Your task to perform on an android device: Open Youtube and go to "Your channel" Image 0: 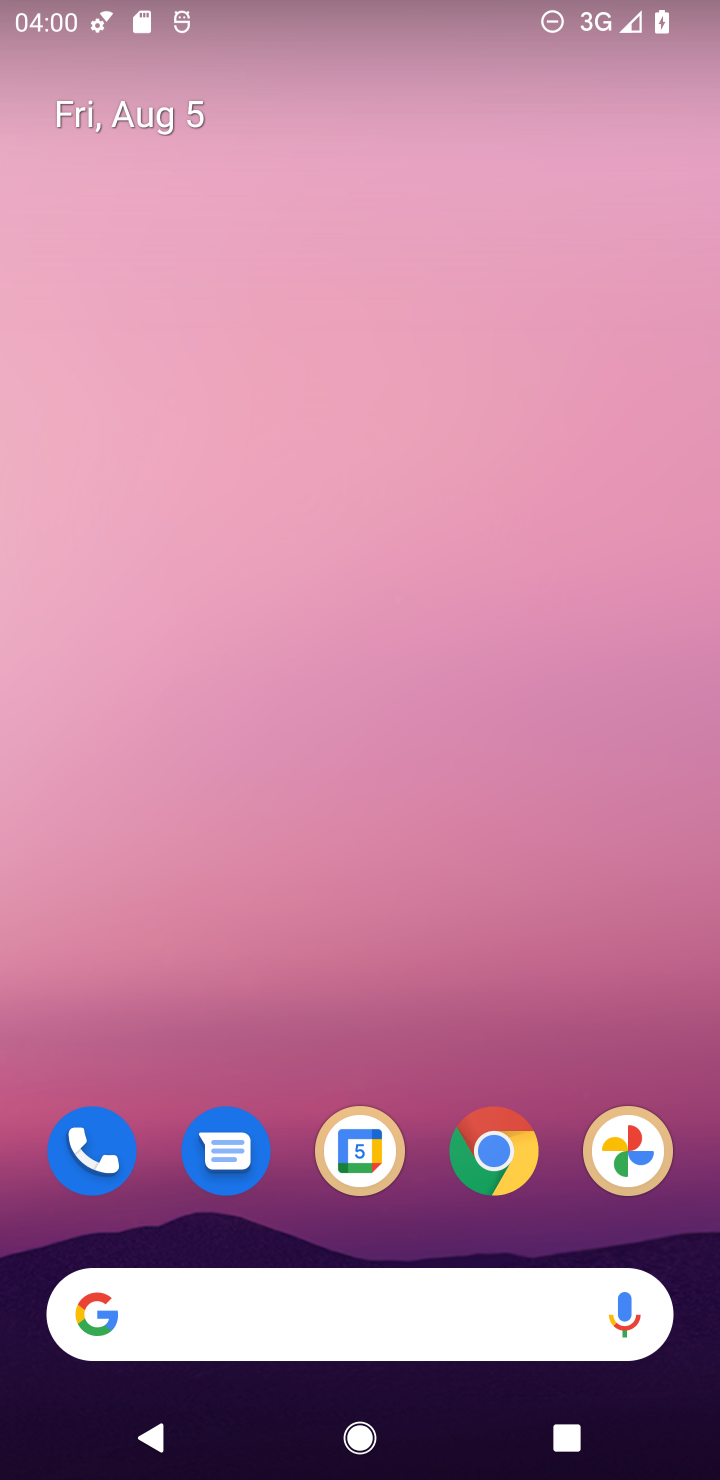
Step 0: drag from (469, 1052) to (440, 255)
Your task to perform on an android device: Open Youtube and go to "Your channel" Image 1: 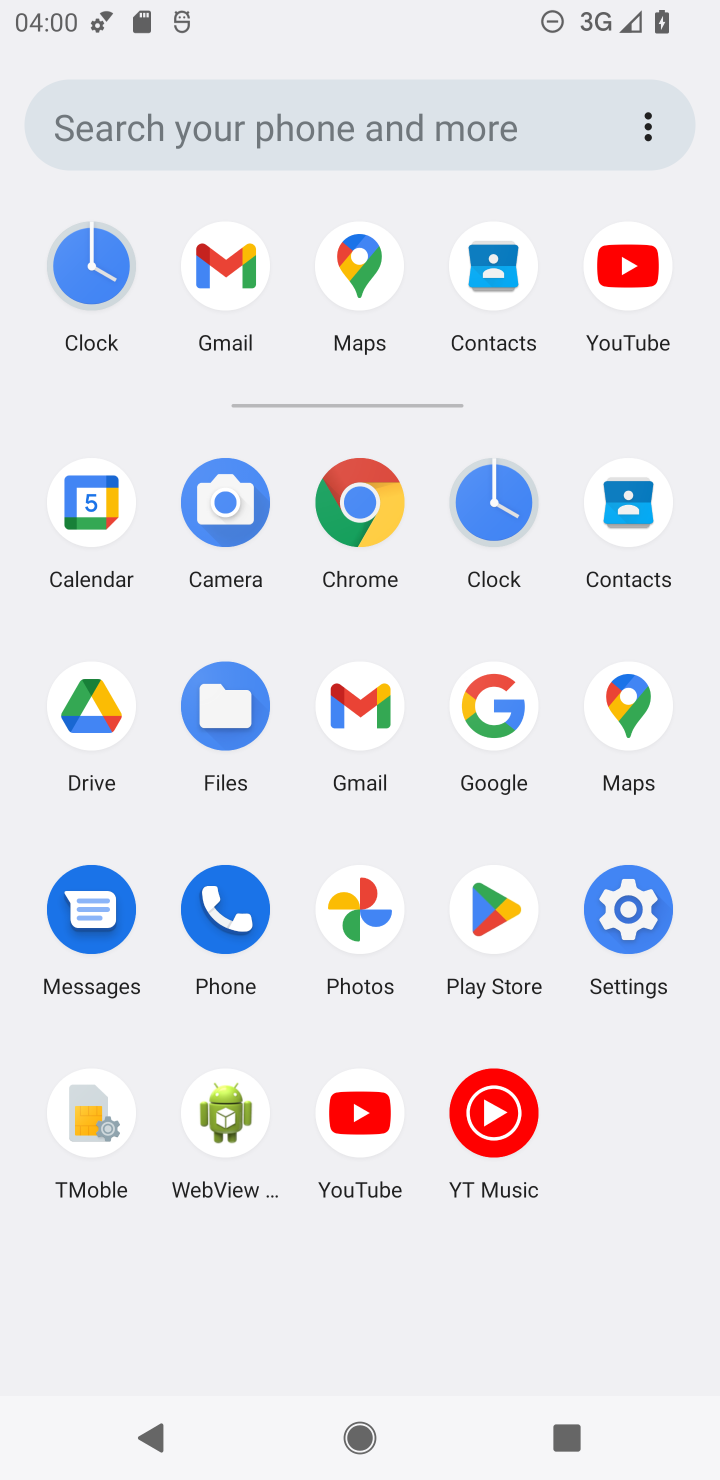
Step 1: click (344, 1092)
Your task to perform on an android device: Open Youtube and go to "Your channel" Image 2: 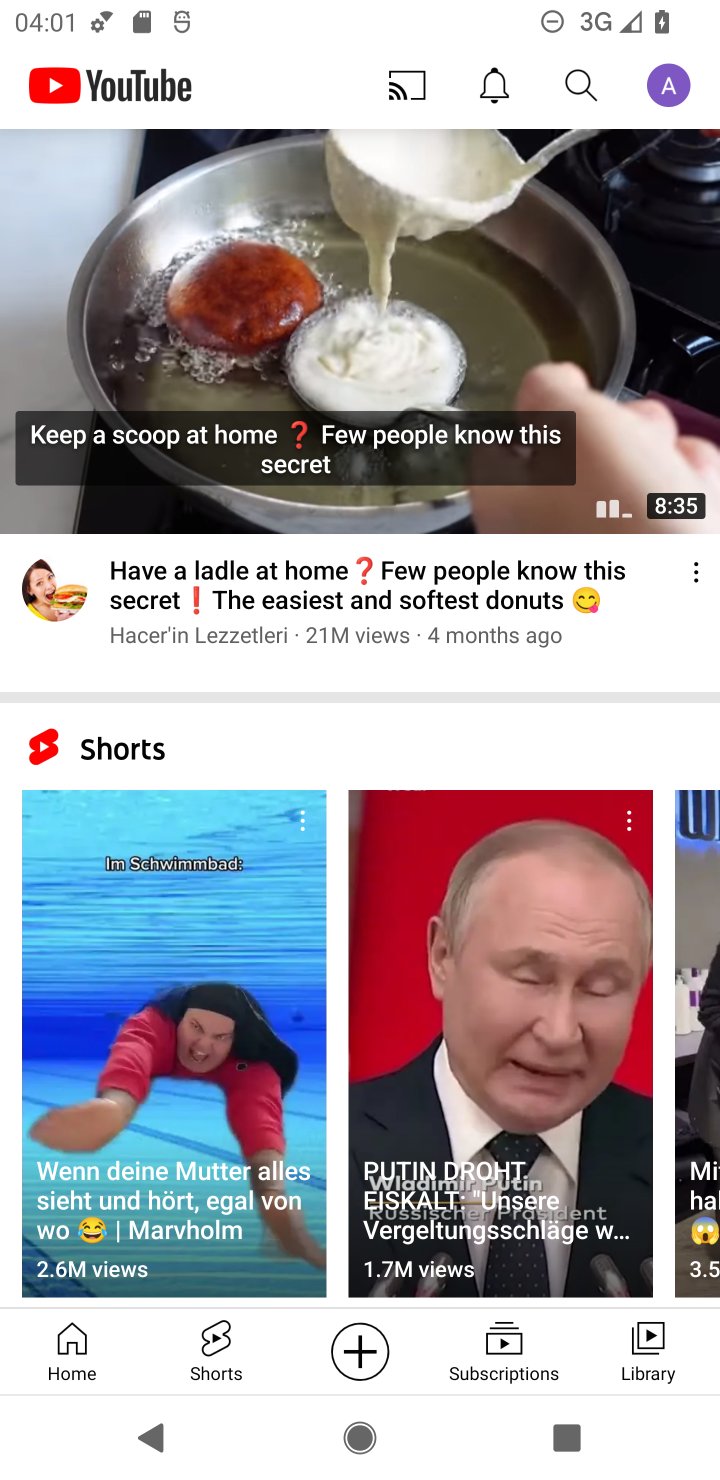
Step 2: click (651, 1333)
Your task to perform on an android device: Open Youtube and go to "Your channel" Image 3: 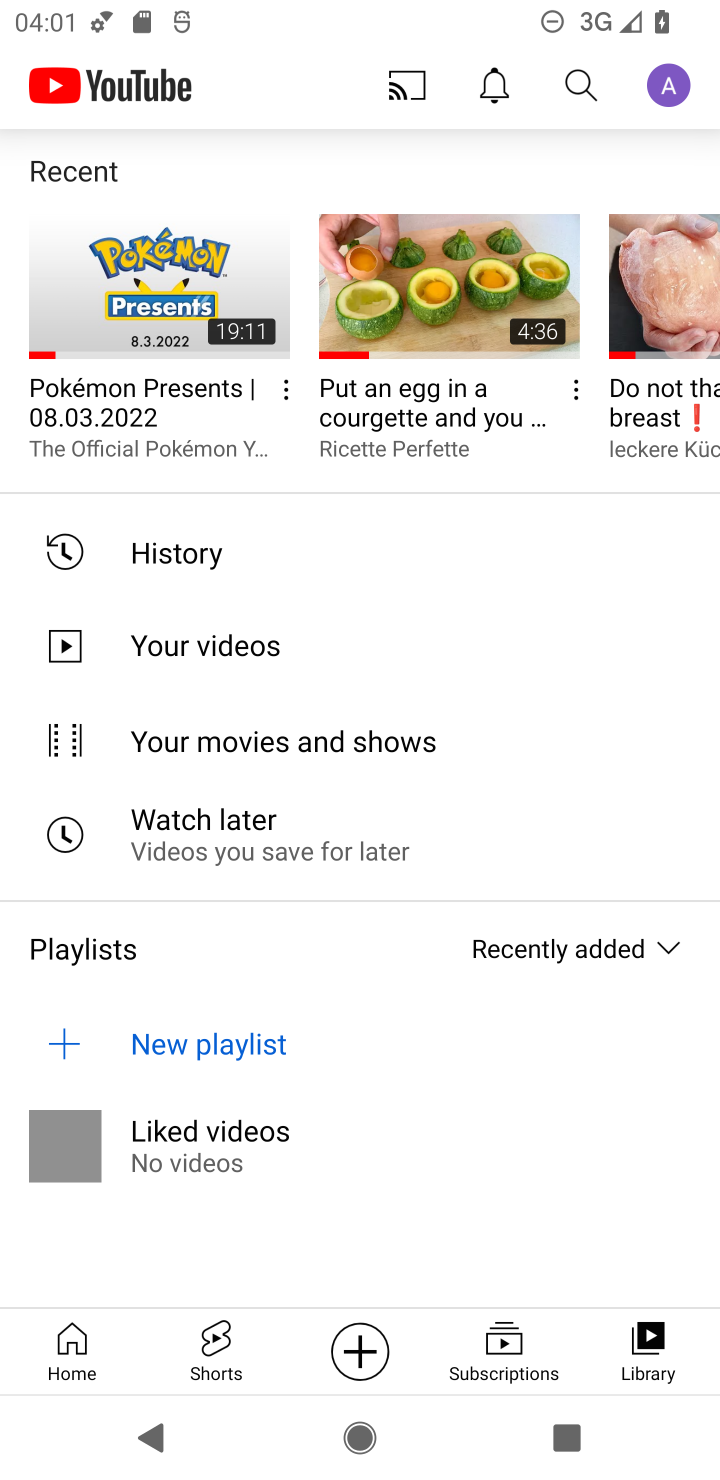
Step 3: click (682, 86)
Your task to perform on an android device: Open Youtube and go to "Your channel" Image 4: 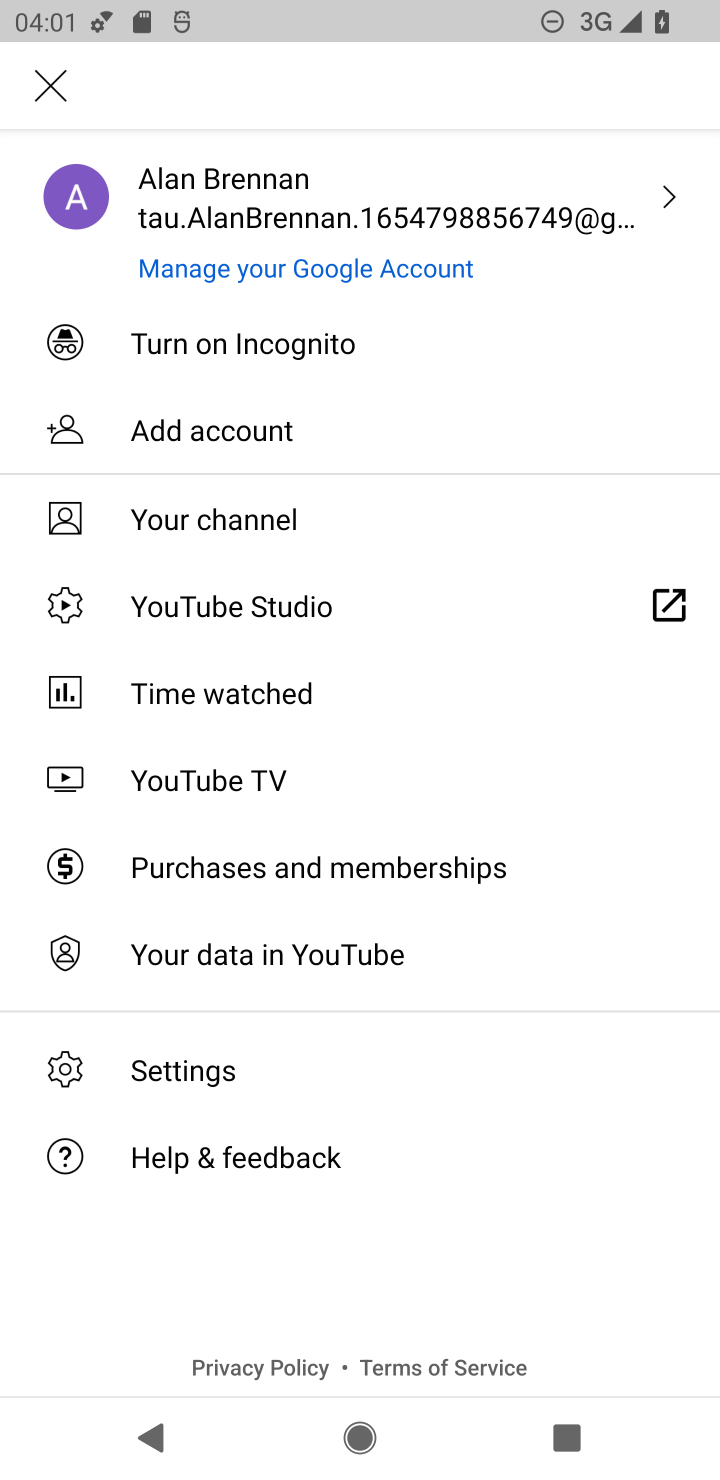
Step 4: click (295, 506)
Your task to perform on an android device: Open Youtube and go to "Your channel" Image 5: 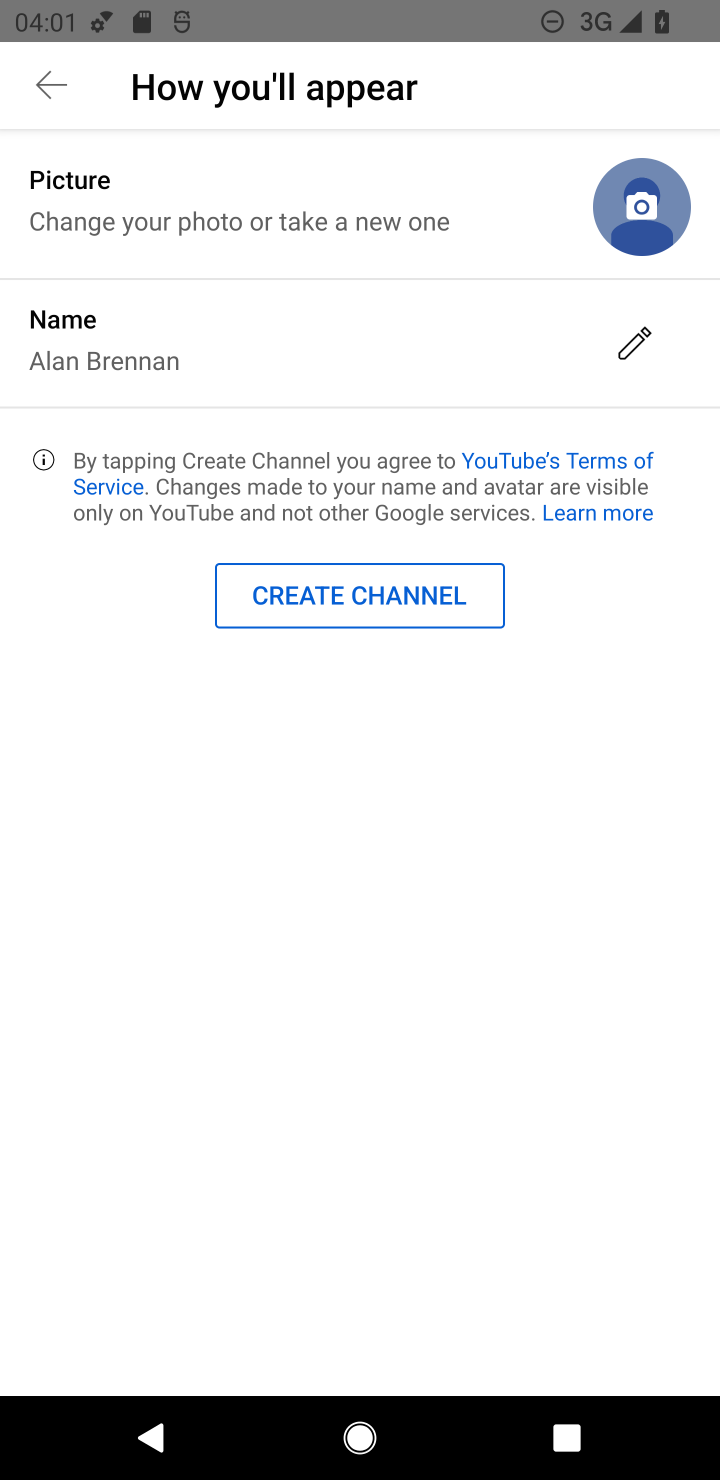
Step 5: task complete